Your task to perform on an android device: Go to Reddit.com Image 0: 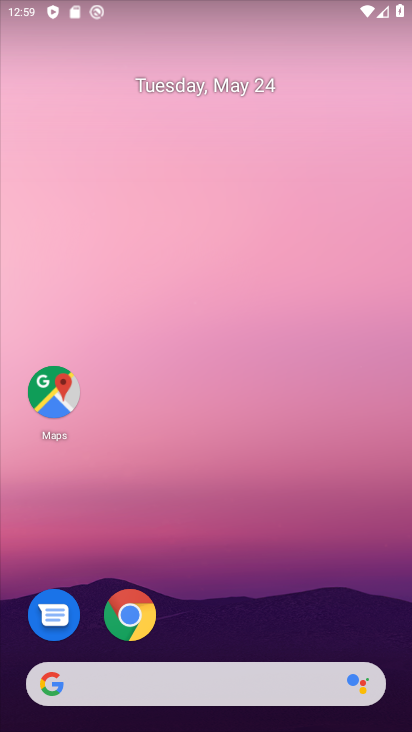
Step 0: click (127, 608)
Your task to perform on an android device: Go to Reddit.com Image 1: 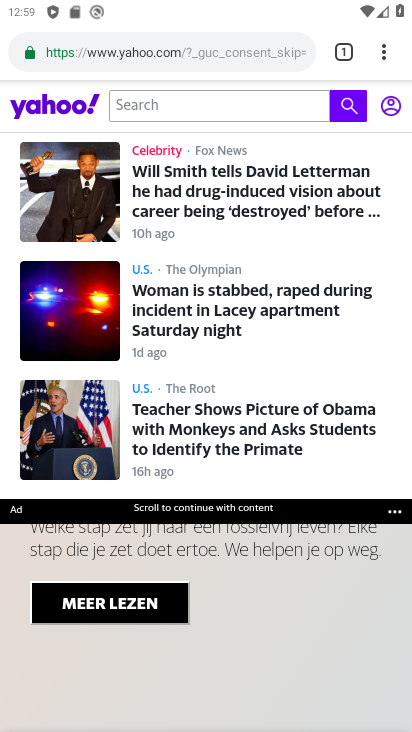
Step 1: click (345, 48)
Your task to perform on an android device: Go to Reddit.com Image 2: 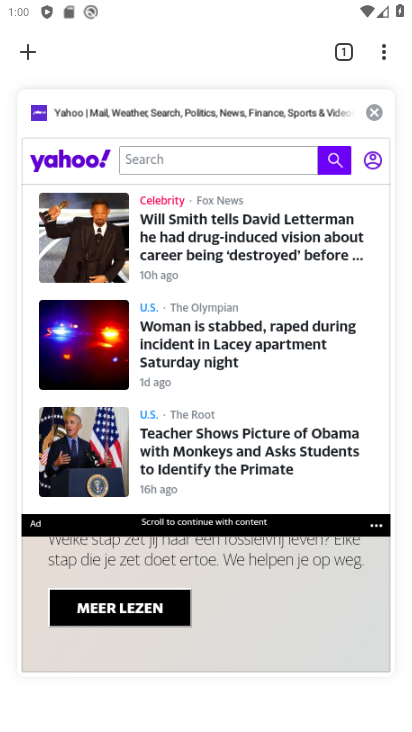
Step 2: click (372, 109)
Your task to perform on an android device: Go to Reddit.com Image 3: 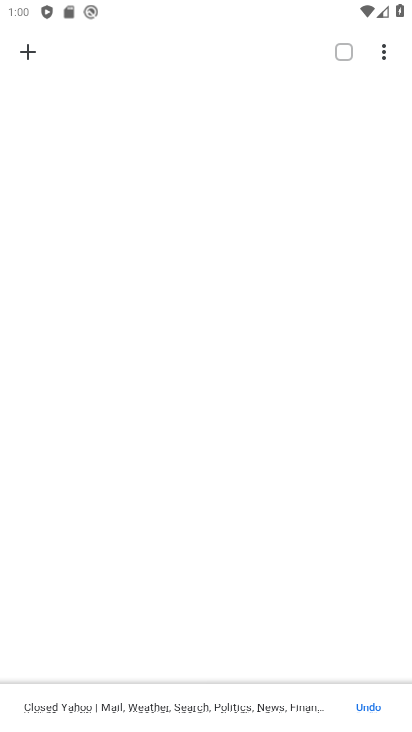
Step 3: click (21, 50)
Your task to perform on an android device: Go to Reddit.com Image 4: 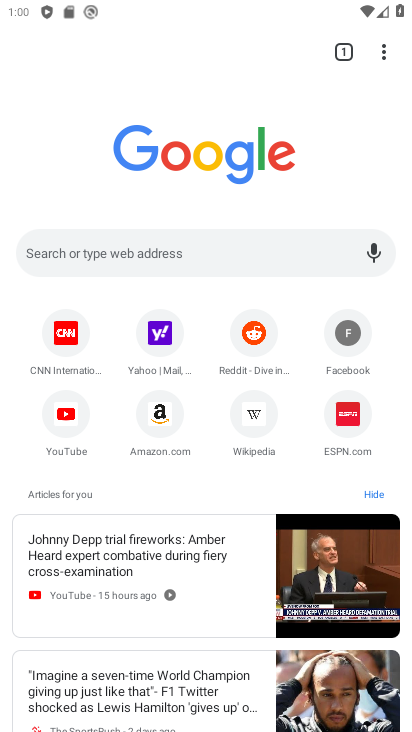
Step 4: click (253, 332)
Your task to perform on an android device: Go to Reddit.com Image 5: 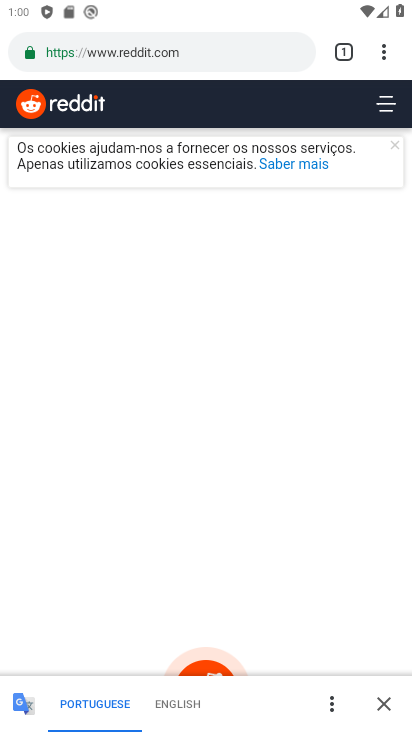
Step 5: task complete